Your task to perform on an android device: delete location history Image 0: 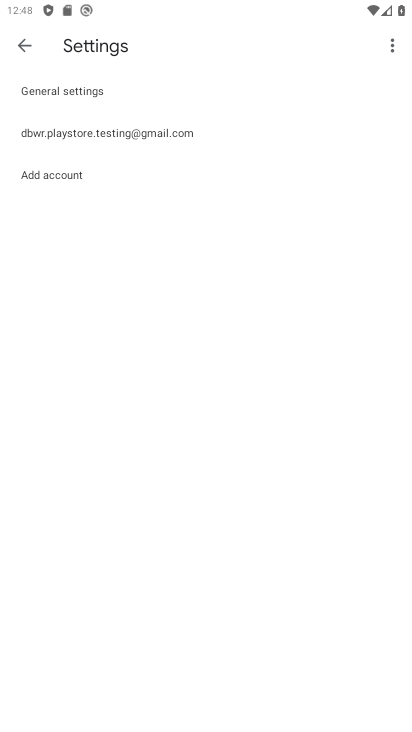
Step 0: press home button
Your task to perform on an android device: delete location history Image 1: 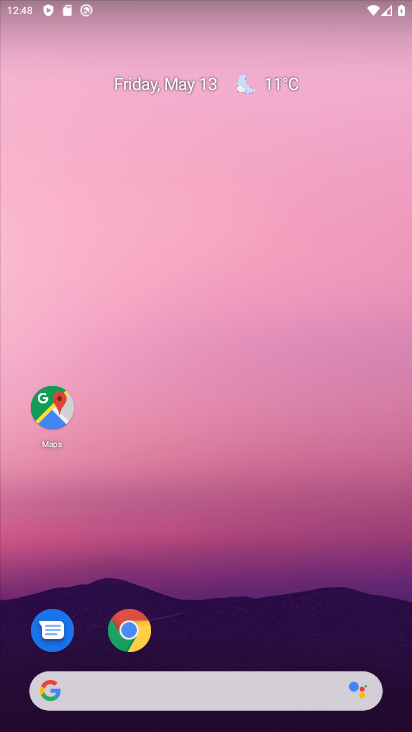
Step 1: drag from (218, 621) to (188, 194)
Your task to perform on an android device: delete location history Image 2: 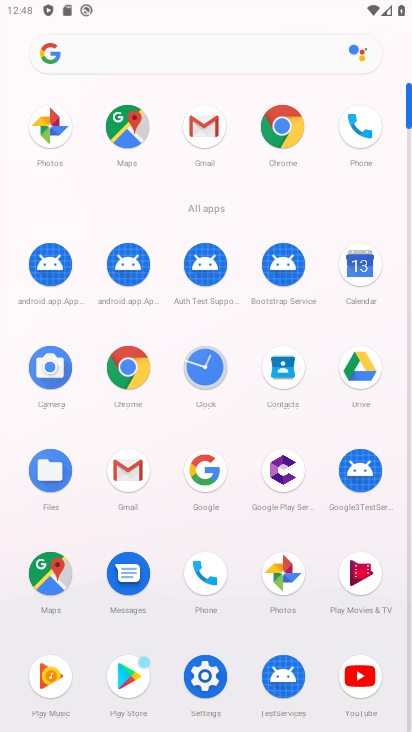
Step 2: click (126, 116)
Your task to perform on an android device: delete location history Image 3: 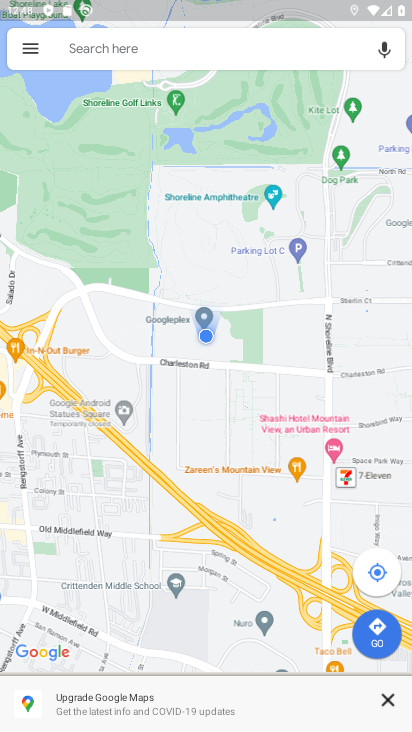
Step 3: click (24, 61)
Your task to perform on an android device: delete location history Image 4: 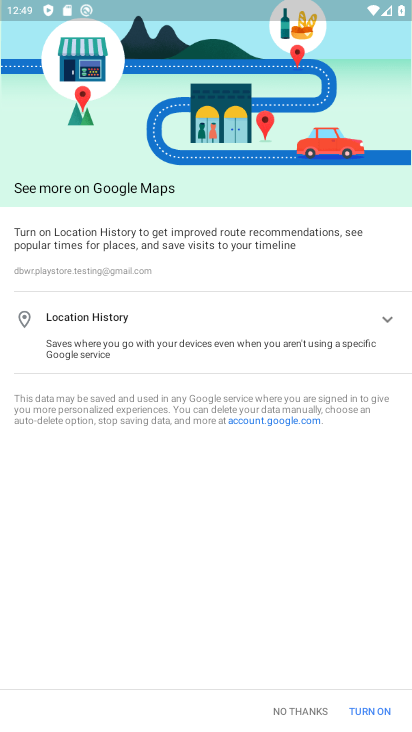
Step 4: click (366, 704)
Your task to perform on an android device: delete location history Image 5: 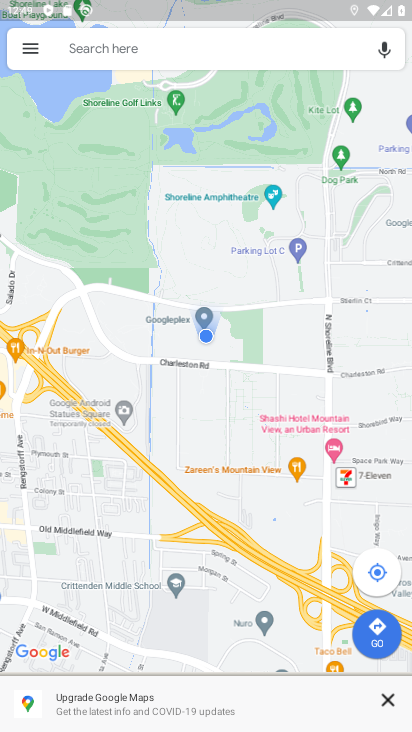
Step 5: click (41, 57)
Your task to perform on an android device: delete location history Image 6: 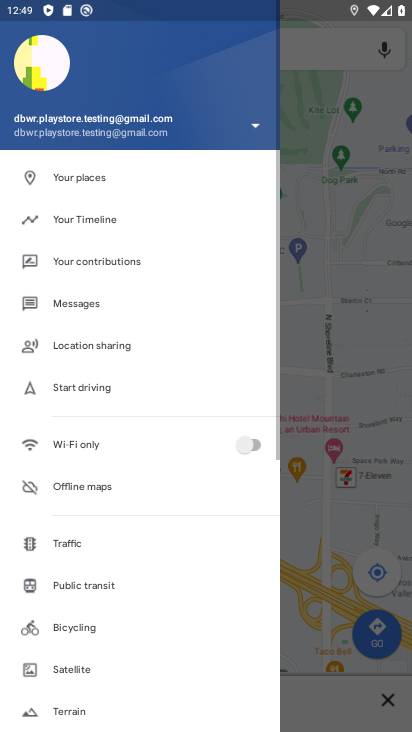
Step 6: click (125, 216)
Your task to perform on an android device: delete location history Image 7: 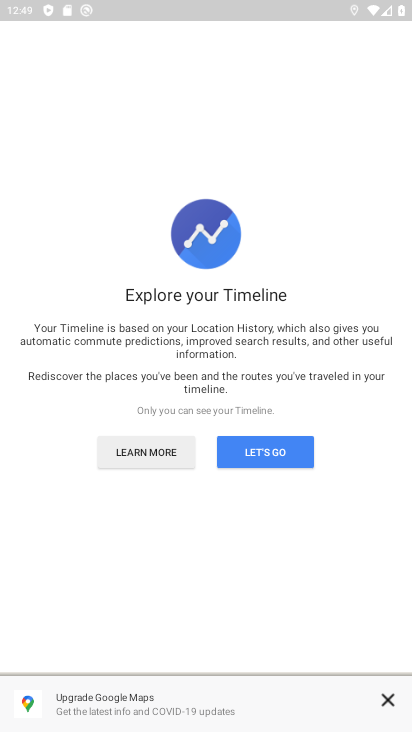
Step 7: click (259, 440)
Your task to perform on an android device: delete location history Image 8: 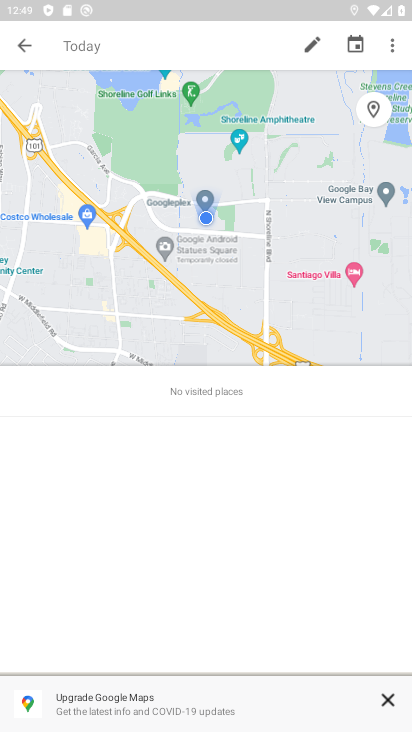
Step 8: click (396, 42)
Your task to perform on an android device: delete location history Image 9: 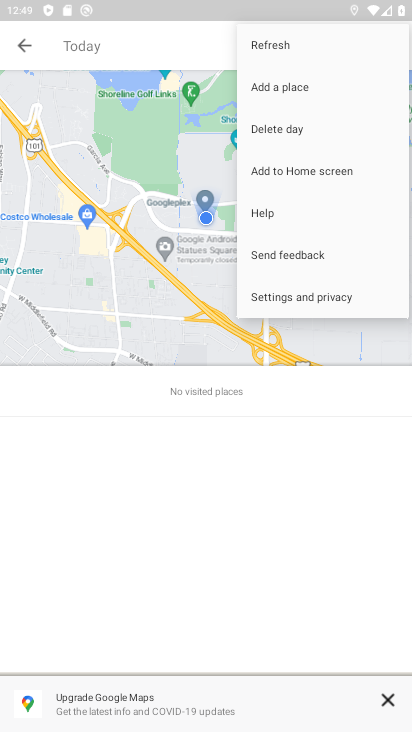
Step 9: click (311, 297)
Your task to perform on an android device: delete location history Image 10: 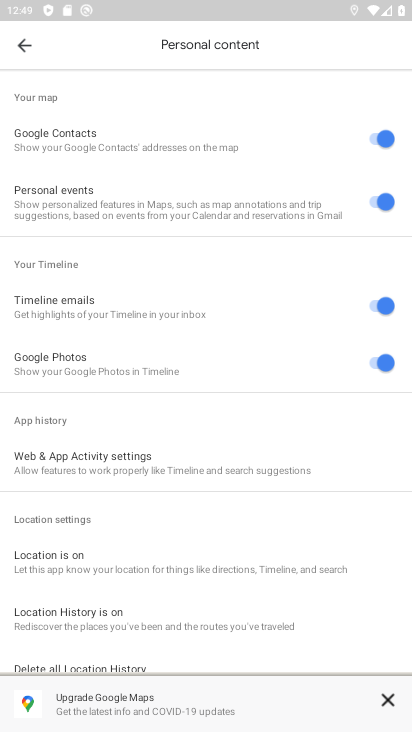
Step 10: click (103, 661)
Your task to perform on an android device: delete location history Image 11: 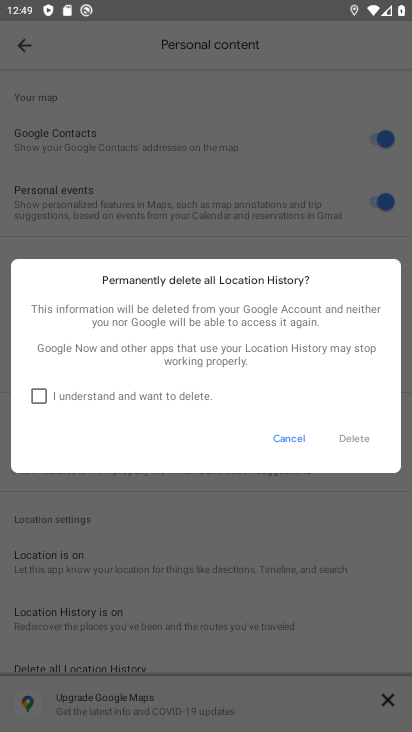
Step 11: click (113, 391)
Your task to perform on an android device: delete location history Image 12: 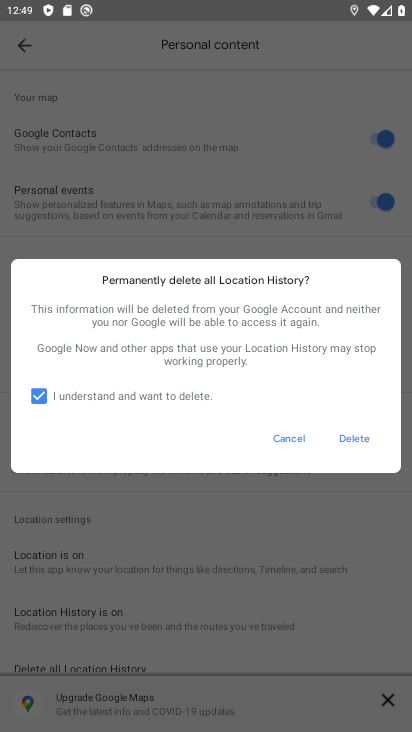
Step 12: click (357, 432)
Your task to perform on an android device: delete location history Image 13: 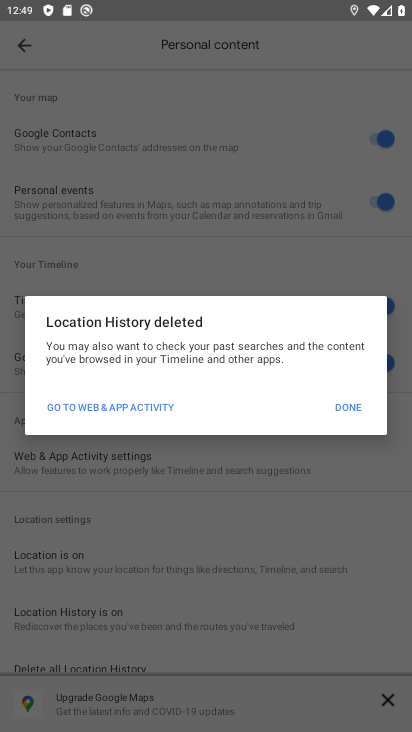
Step 13: task complete